Your task to perform on an android device: change text size in settings app Image 0: 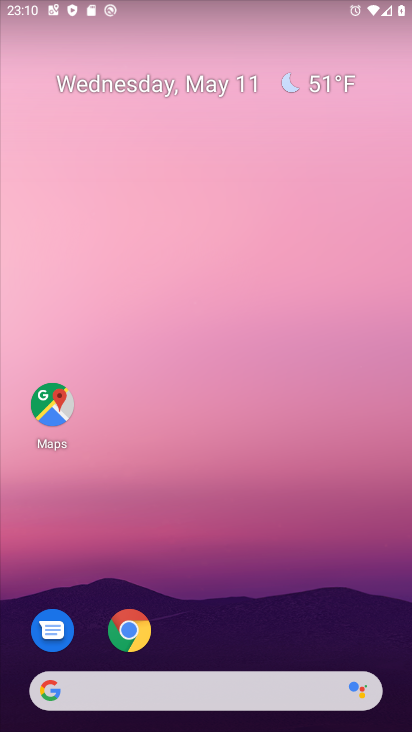
Step 0: drag from (235, 729) to (234, 42)
Your task to perform on an android device: change text size in settings app Image 1: 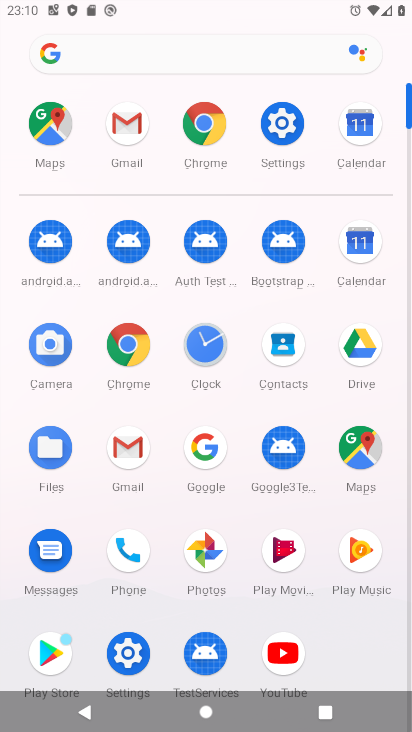
Step 1: click (278, 114)
Your task to perform on an android device: change text size in settings app Image 2: 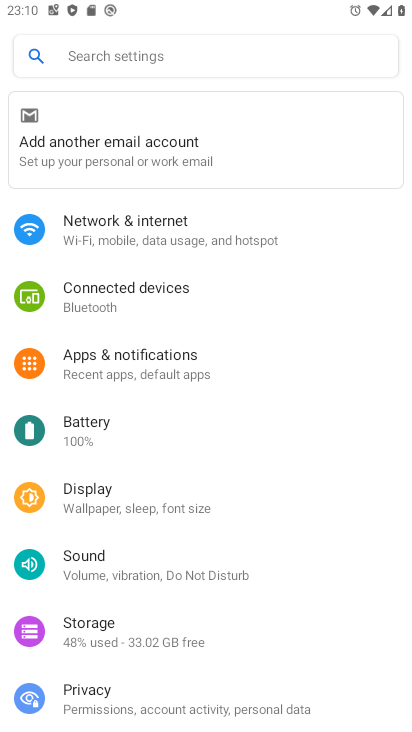
Step 2: click (163, 504)
Your task to perform on an android device: change text size in settings app Image 3: 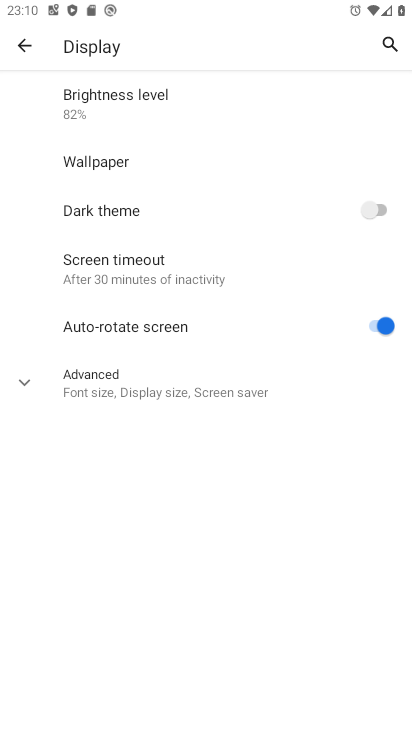
Step 3: click (117, 381)
Your task to perform on an android device: change text size in settings app Image 4: 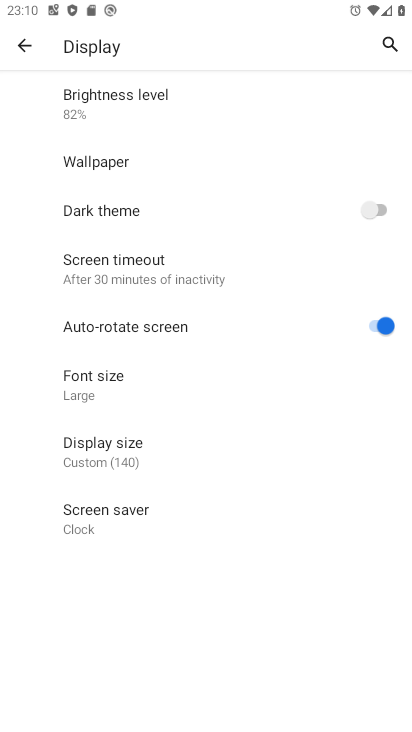
Step 4: click (80, 384)
Your task to perform on an android device: change text size in settings app Image 5: 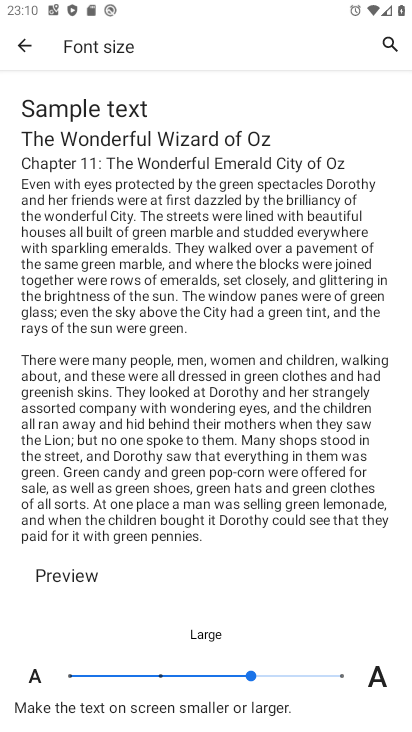
Step 5: click (161, 676)
Your task to perform on an android device: change text size in settings app Image 6: 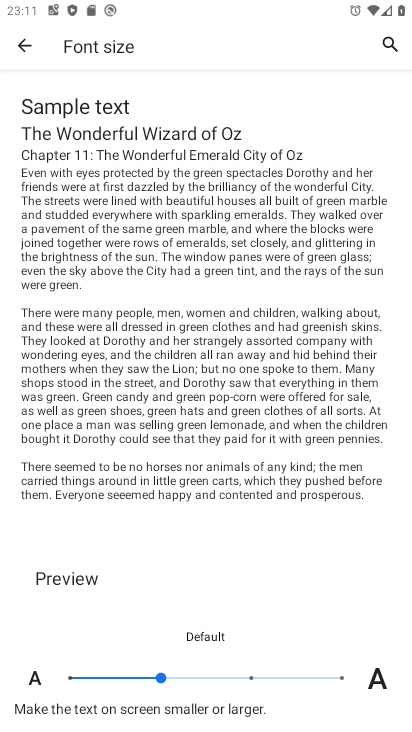
Step 6: task complete